Your task to perform on an android device: add a contact in the contacts app Image 0: 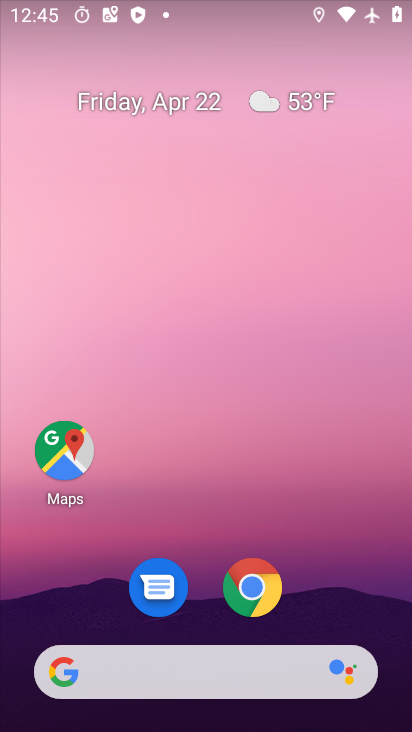
Step 0: drag from (178, 583) to (262, 178)
Your task to perform on an android device: add a contact in the contacts app Image 1: 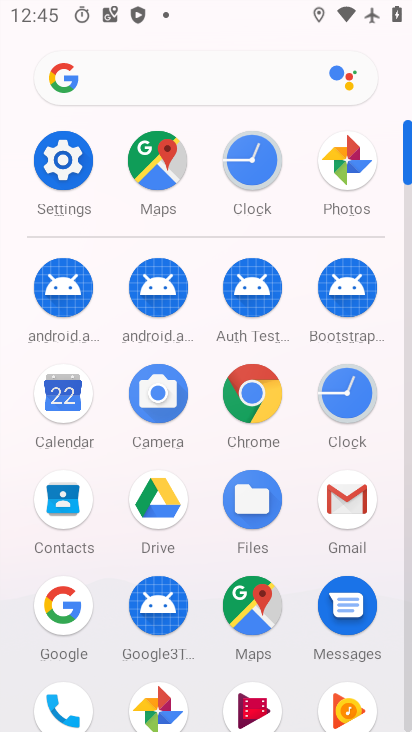
Step 1: click (66, 512)
Your task to perform on an android device: add a contact in the contacts app Image 2: 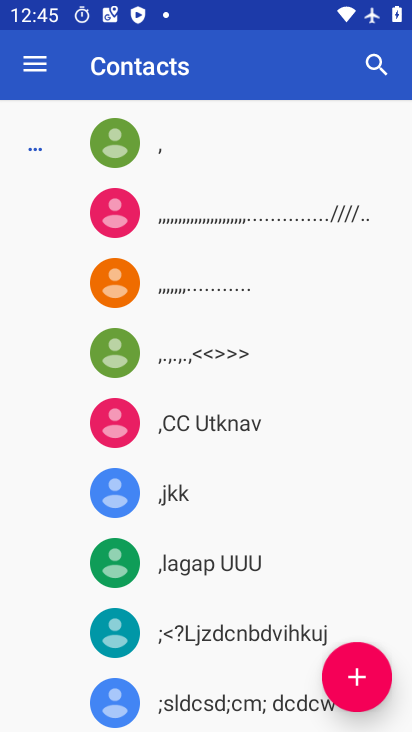
Step 2: click (346, 690)
Your task to perform on an android device: add a contact in the contacts app Image 3: 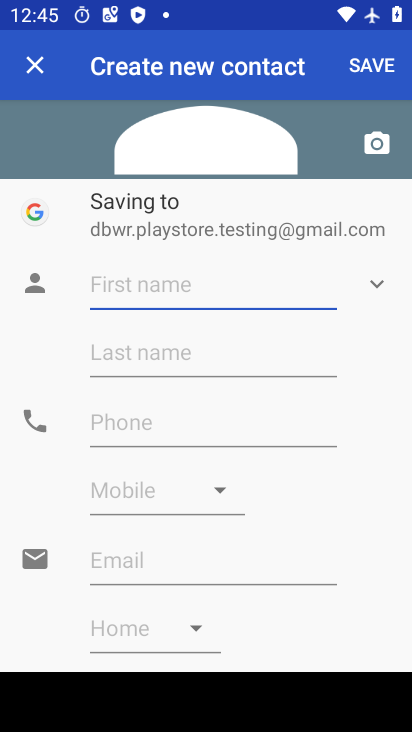
Step 3: click (154, 274)
Your task to perform on an android device: add a contact in the contacts app Image 4: 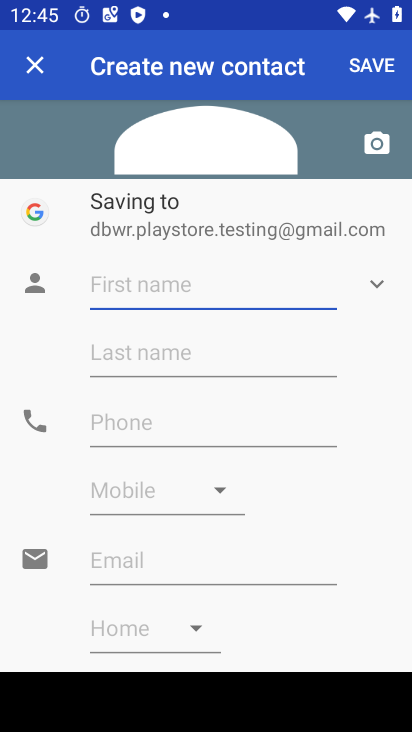
Step 4: type "nyirthgj"
Your task to perform on an android device: add a contact in the contacts app Image 5: 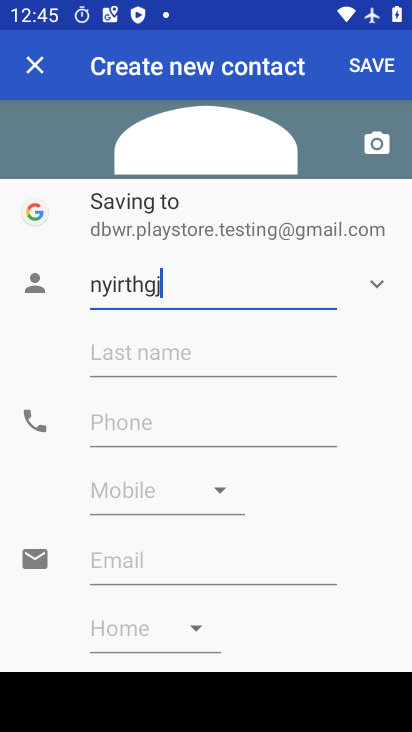
Step 5: click (96, 415)
Your task to perform on an android device: add a contact in the contacts app Image 6: 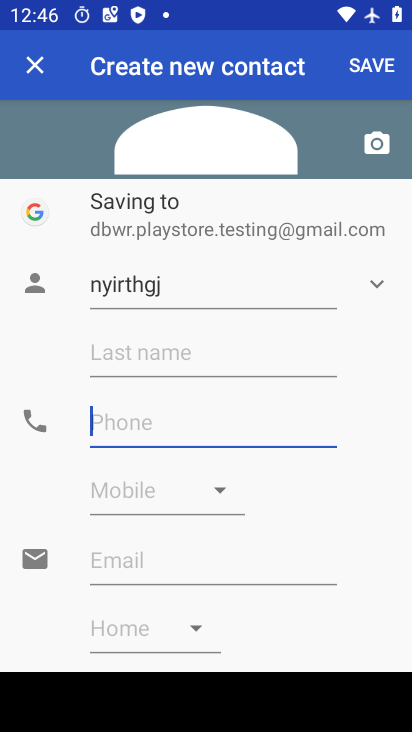
Step 6: type "8129846"
Your task to perform on an android device: add a contact in the contacts app Image 7: 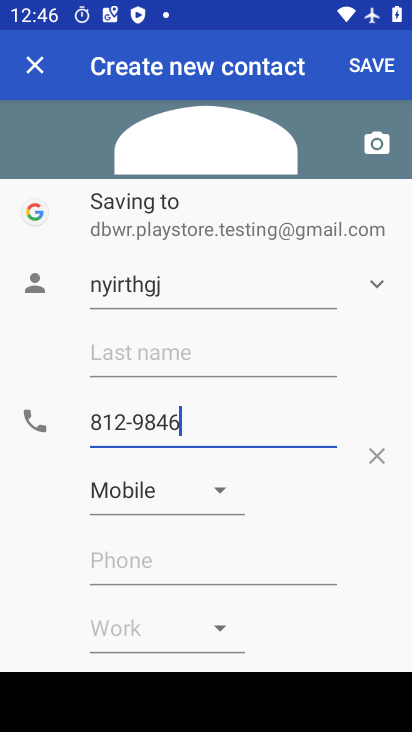
Step 7: click (375, 63)
Your task to perform on an android device: add a contact in the contacts app Image 8: 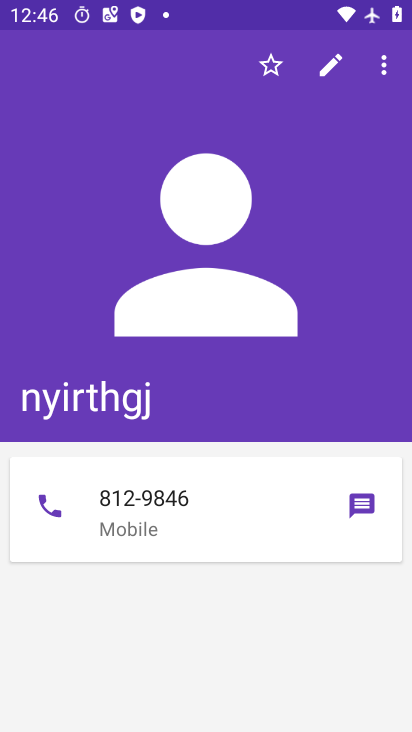
Step 8: task complete